Your task to perform on an android device: turn on bluetooth scan Image 0: 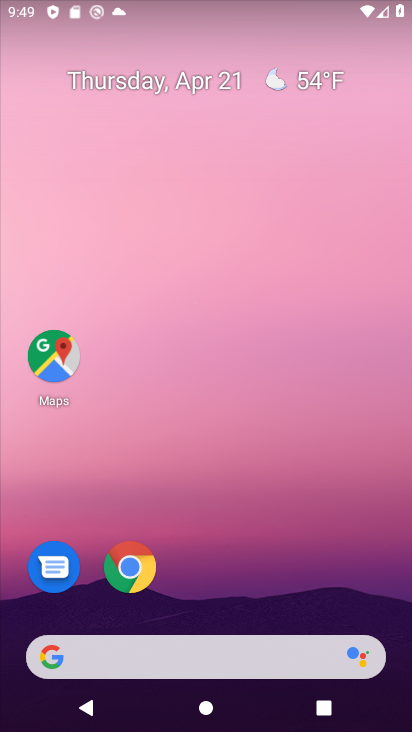
Step 0: drag from (205, 581) to (272, 137)
Your task to perform on an android device: turn on bluetooth scan Image 1: 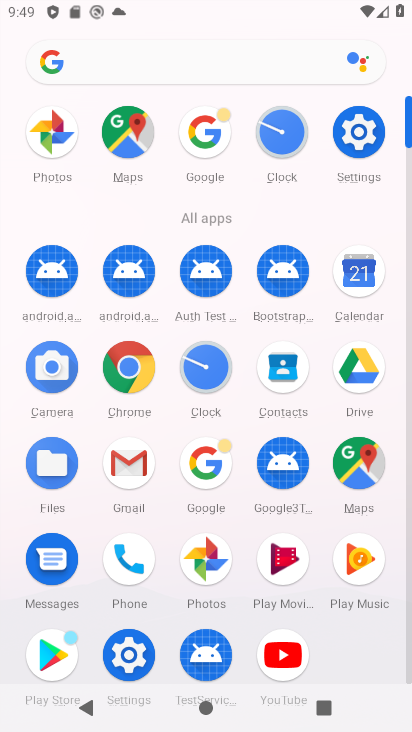
Step 1: click (126, 666)
Your task to perform on an android device: turn on bluetooth scan Image 2: 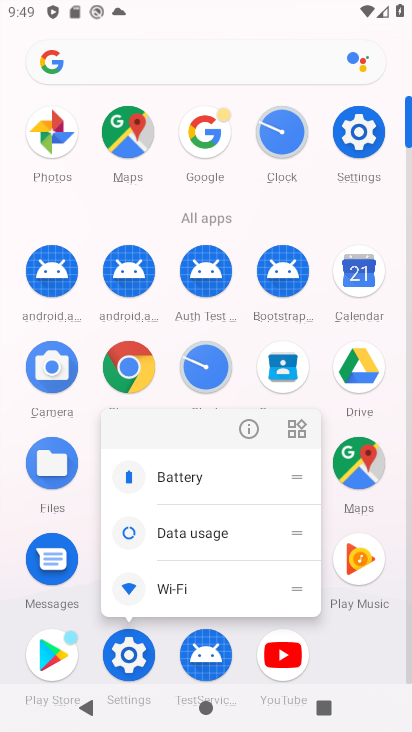
Step 2: click (134, 656)
Your task to perform on an android device: turn on bluetooth scan Image 3: 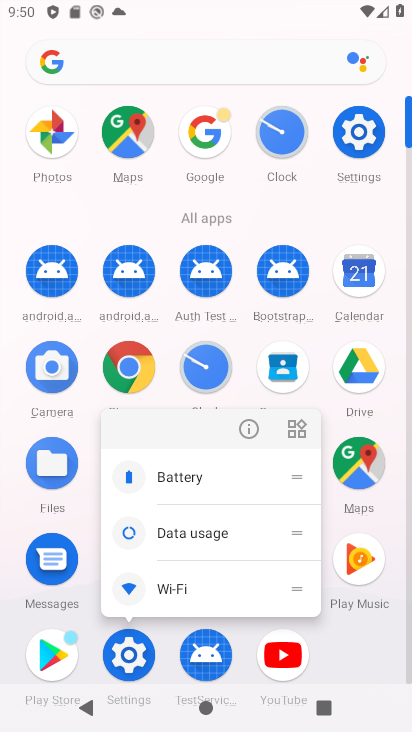
Step 3: click (138, 652)
Your task to perform on an android device: turn on bluetooth scan Image 4: 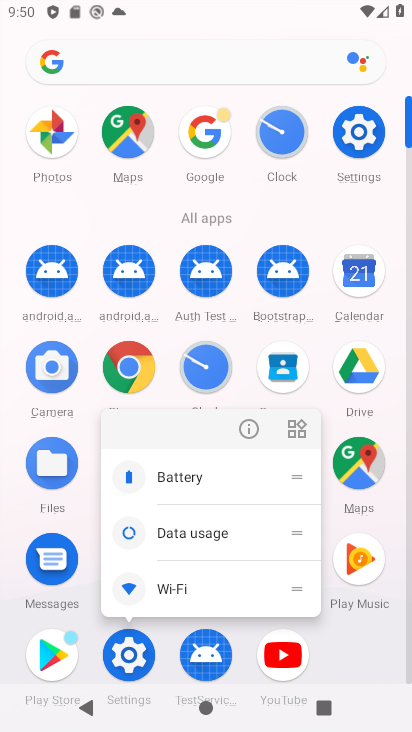
Step 4: click (124, 650)
Your task to perform on an android device: turn on bluetooth scan Image 5: 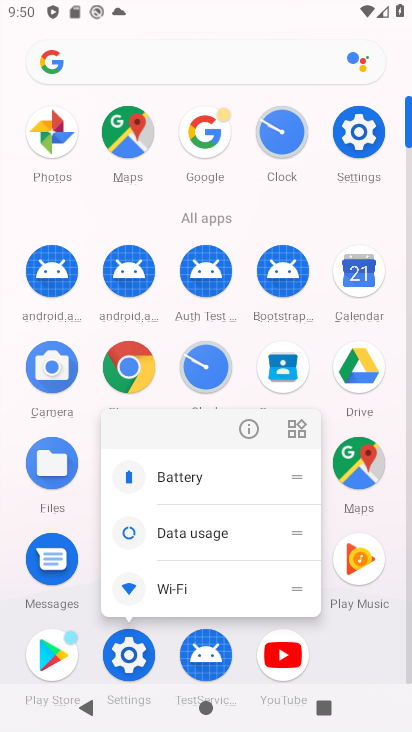
Step 5: click (126, 662)
Your task to perform on an android device: turn on bluetooth scan Image 6: 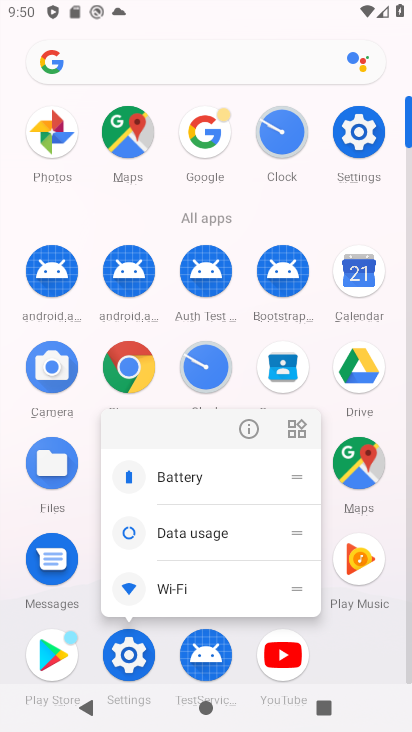
Step 6: click (132, 659)
Your task to perform on an android device: turn on bluetooth scan Image 7: 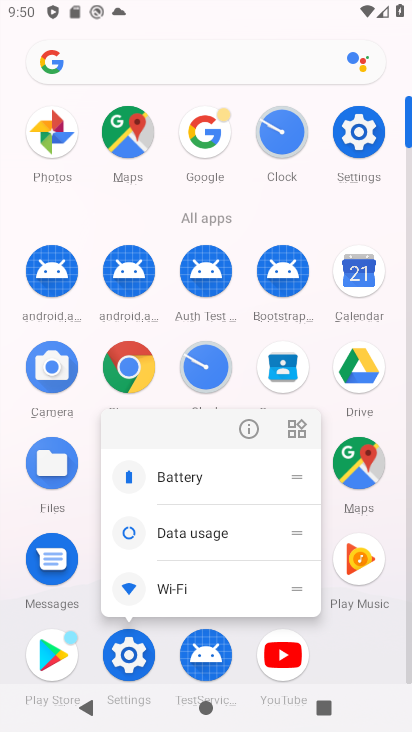
Step 7: click (149, 658)
Your task to perform on an android device: turn on bluetooth scan Image 8: 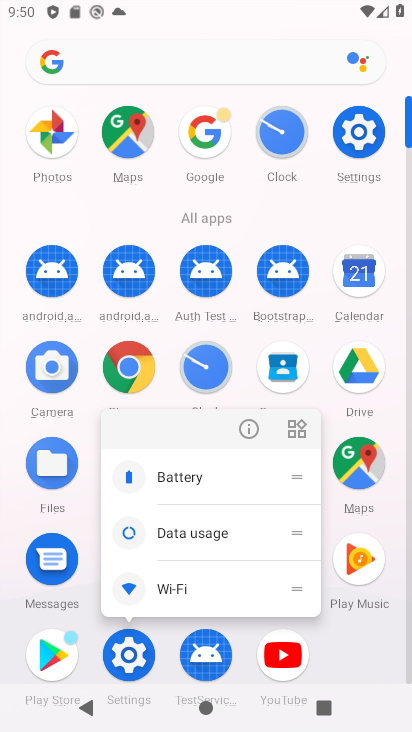
Step 8: click (140, 654)
Your task to perform on an android device: turn on bluetooth scan Image 9: 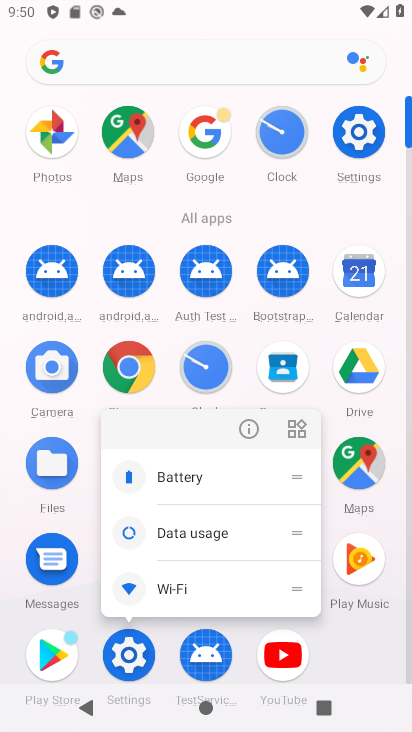
Step 9: click (137, 654)
Your task to perform on an android device: turn on bluetooth scan Image 10: 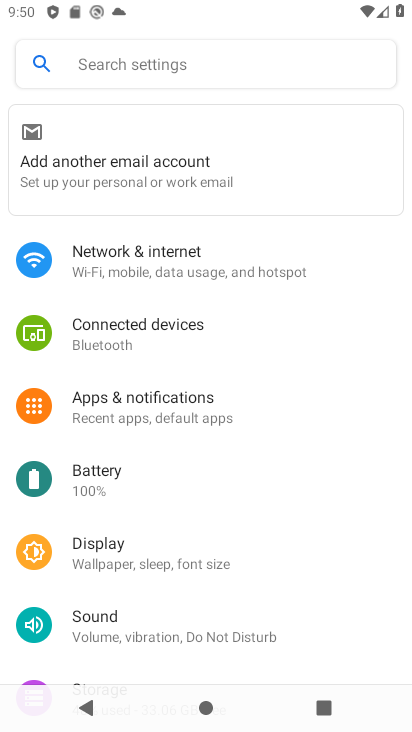
Step 10: click (196, 341)
Your task to perform on an android device: turn on bluetooth scan Image 11: 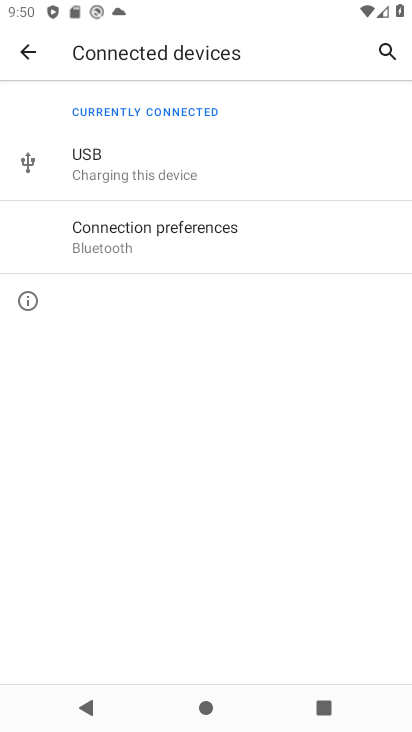
Step 11: click (268, 249)
Your task to perform on an android device: turn on bluetooth scan Image 12: 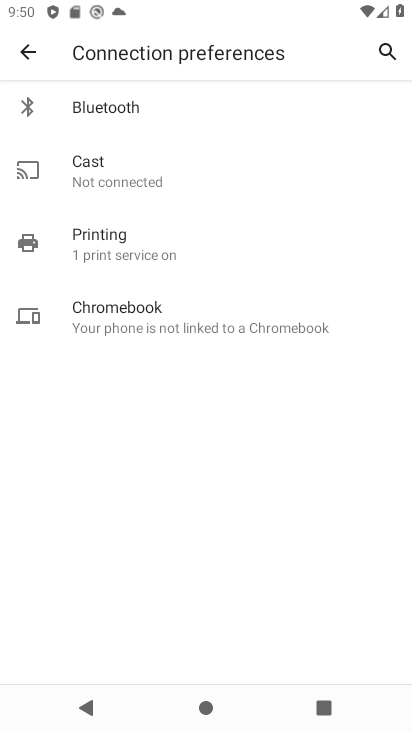
Step 12: click (143, 125)
Your task to perform on an android device: turn on bluetooth scan Image 13: 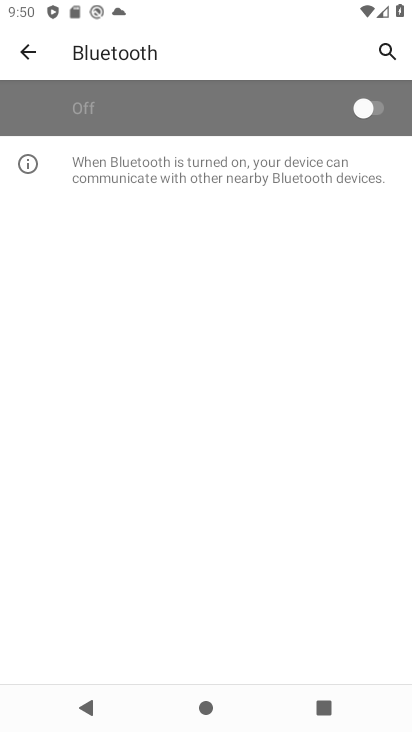
Step 13: click (383, 110)
Your task to perform on an android device: turn on bluetooth scan Image 14: 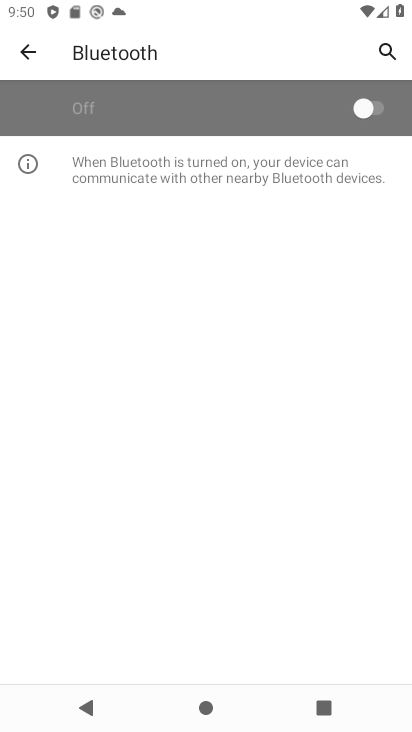
Step 14: click (384, 110)
Your task to perform on an android device: turn on bluetooth scan Image 15: 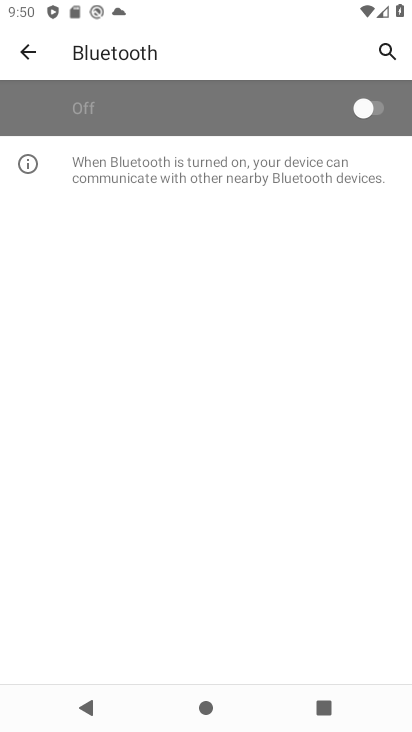
Step 15: click (383, 109)
Your task to perform on an android device: turn on bluetooth scan Image 16: 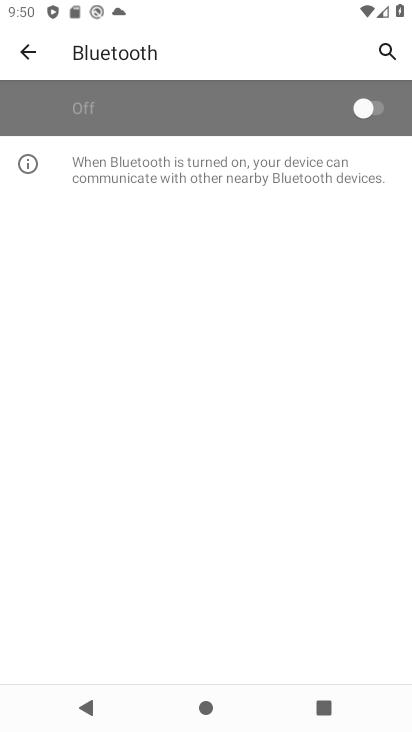
Step 16: task complete